Your task to perform on an android device: toggle javascript in the chrome app Image 0: 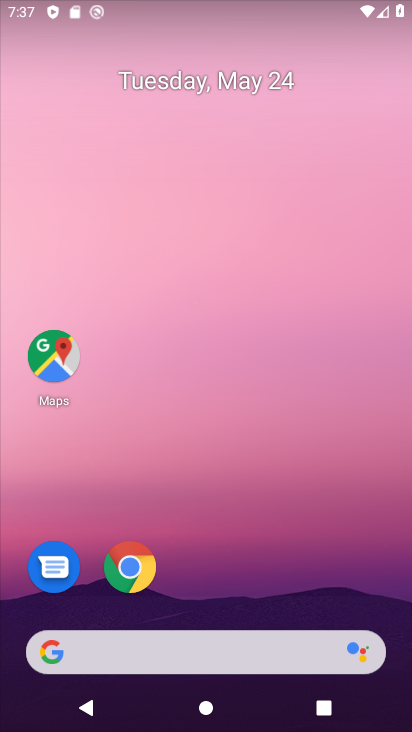
Step 0: click (142, 564)
Your task to perform on an android device: toggle javascript in the chrome app Image 1: 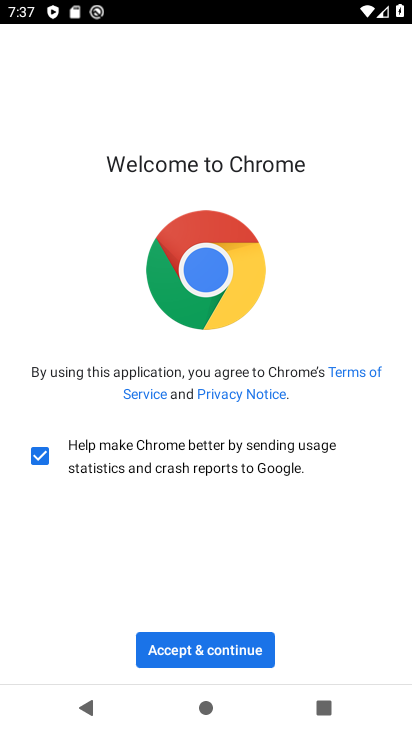
Step 1: click (208, 634)
Your task to perform on an android device: toggle javascript in the chrome app Image 2: 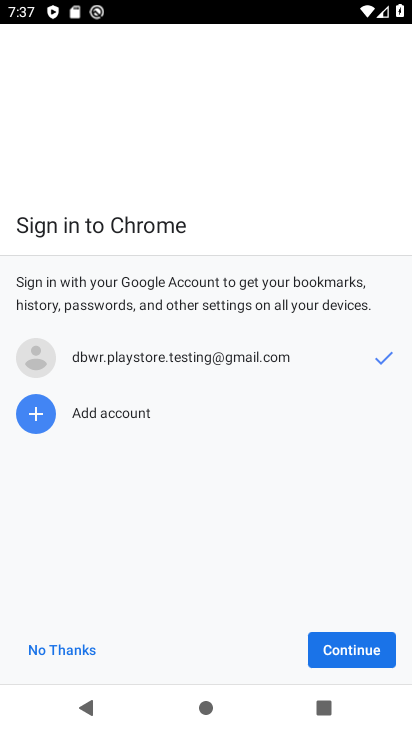
Step 2: click (328, 660)
Your task to perform on an android device: toggle javascript in the chrome app Image 3: 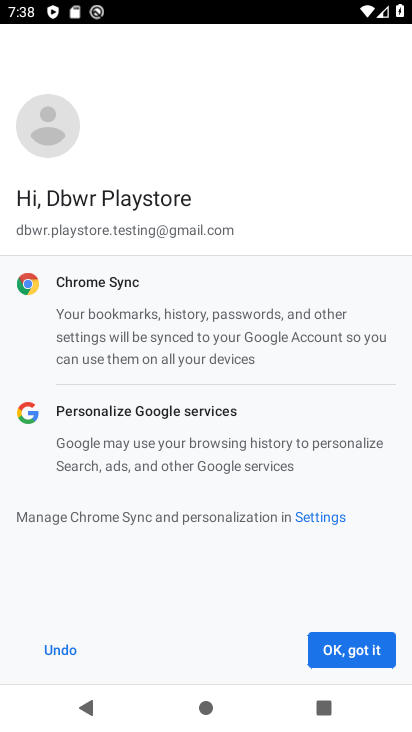
Step 3: click (328, 660)
Your task to perform on an android device: toggle javascript in the chrome app Image 4: 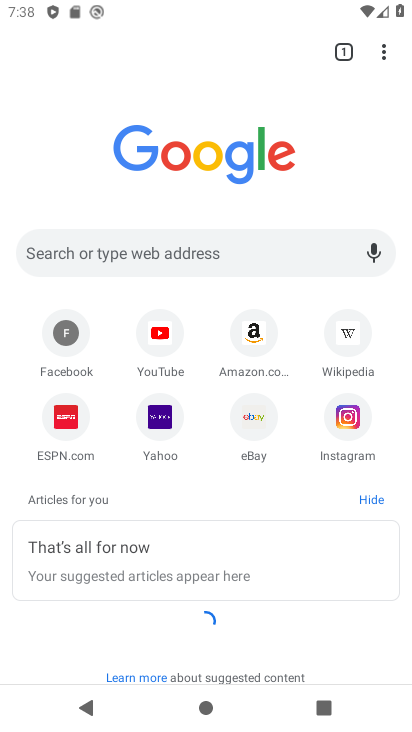
Step 4: click (393, 50)
Your task to perform on an android device: toggle javascript in the chrome app Image 5: 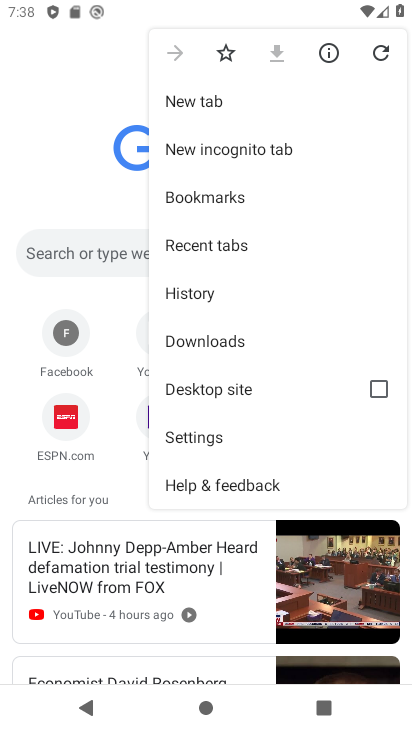
Step 5: click (192, 432)
Your task to perform on an android device: toggle javascript in the chrome app Image 6: 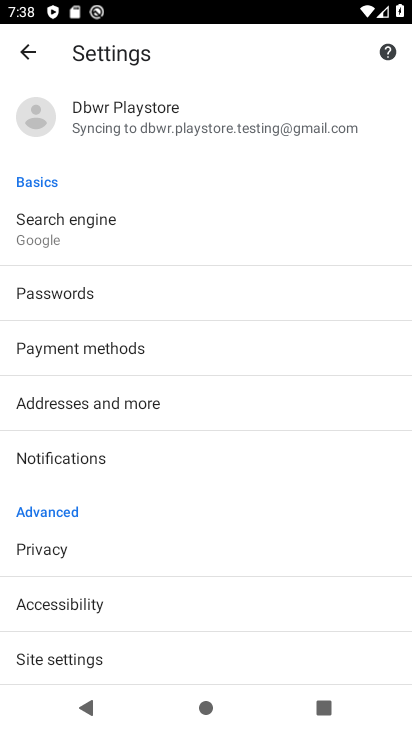
Step 6: click (109, 664)
Your task to perform on an android device: toggle javascript in the chrome app Image 7: 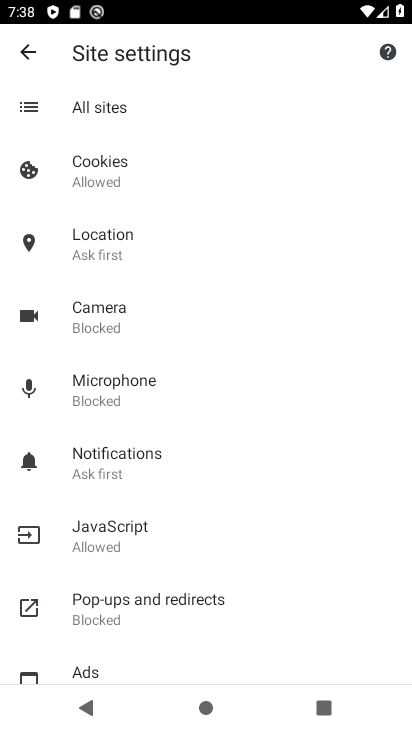
Step 7: click (30, 536)
Your task to perform on an android device: toggle javascript in the chrome app Image 8: 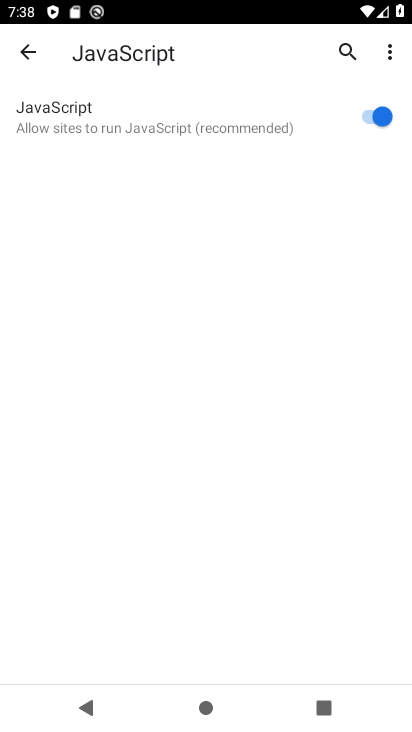
Step 8: click (368, 123)
Your task to perform on an android device: toggle javascript in the chrome app Image 9: 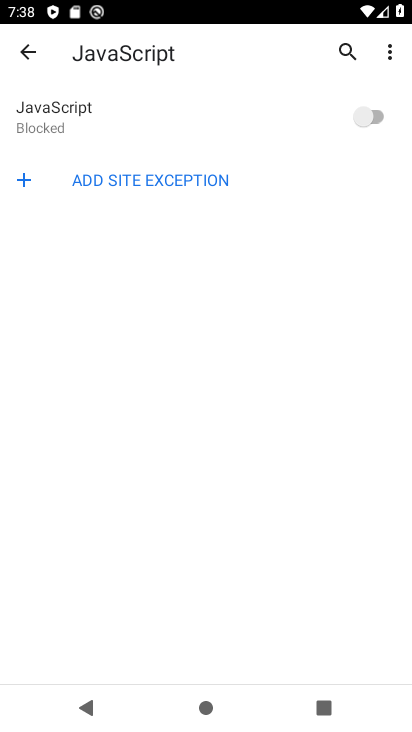
Step 9: click (368, 123)
Your task to perform on an android device: toggle javascript in the chrome app Image 10: 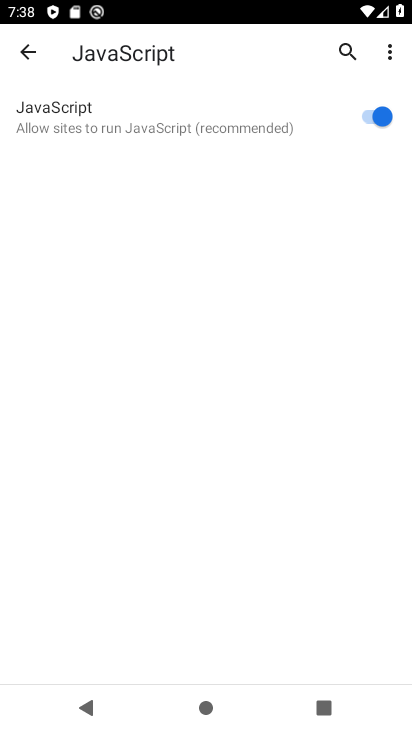
Step 10: task complete